Your task to perform on an android device: Go to notification settings Image 0: 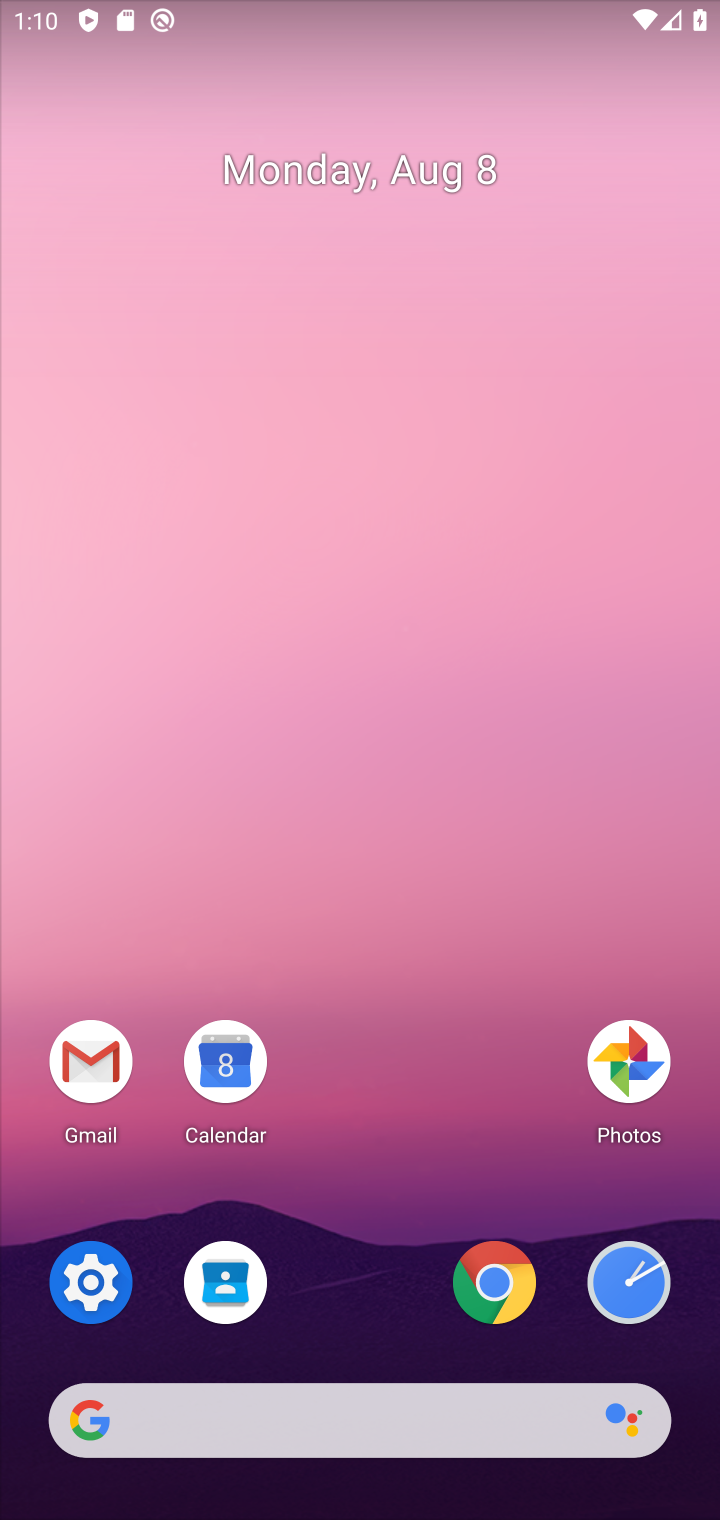
Step 0: click (75, 1290)
Your task to perform on an android device: Go to notification settings Image 1: 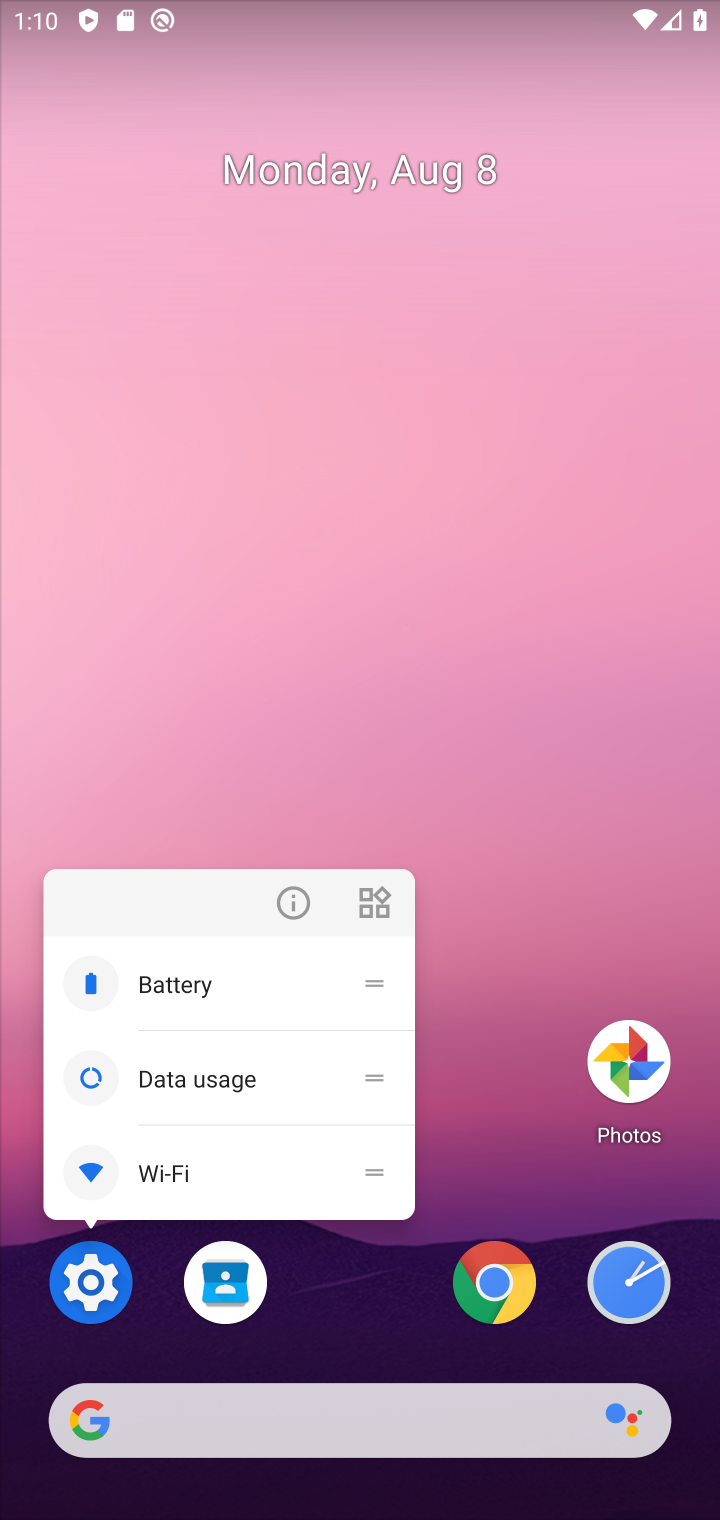
Step 1: click (75, 1290)
Your task to perform on an android device: Go to notification settings Image 2: 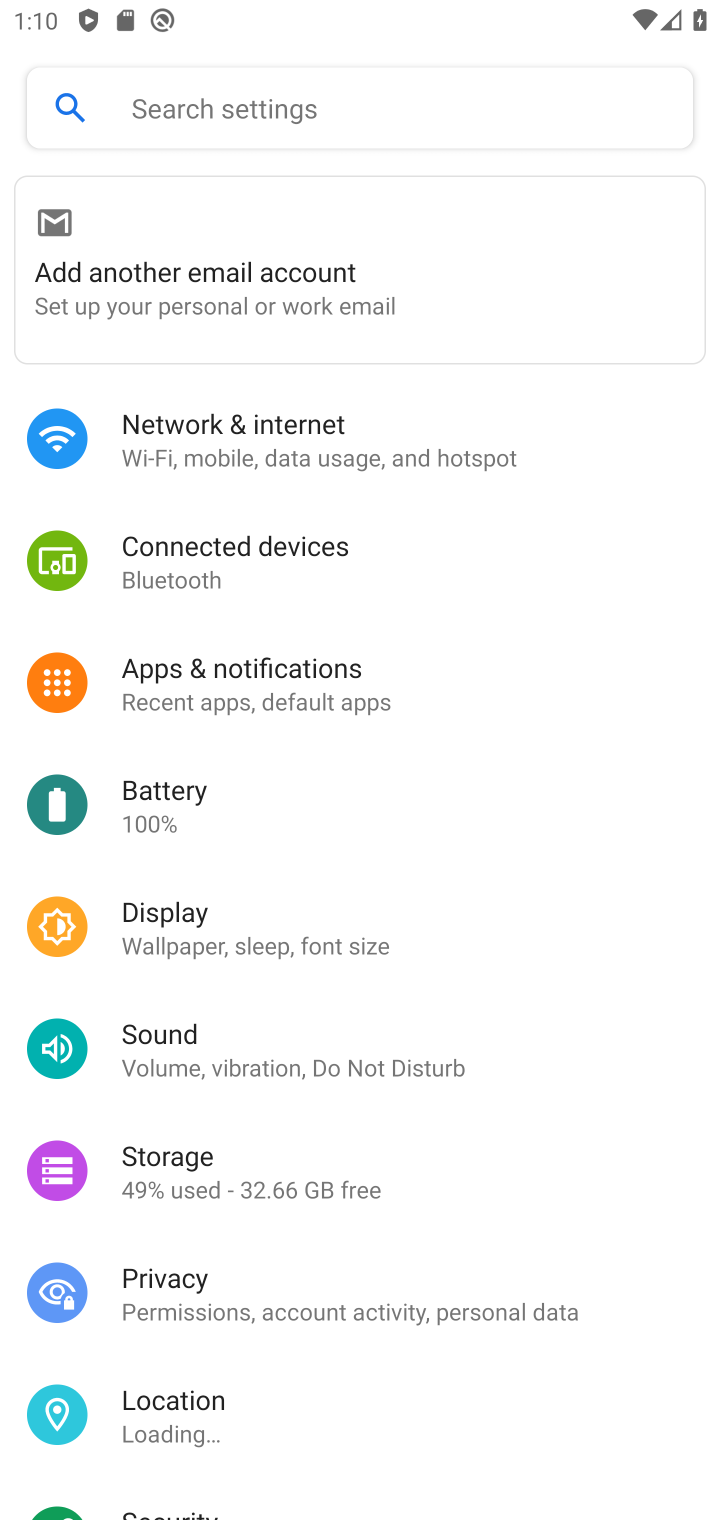
Step 2: click (321, 654)
Your task to perform on an android device: Go to notification settings Image 3: 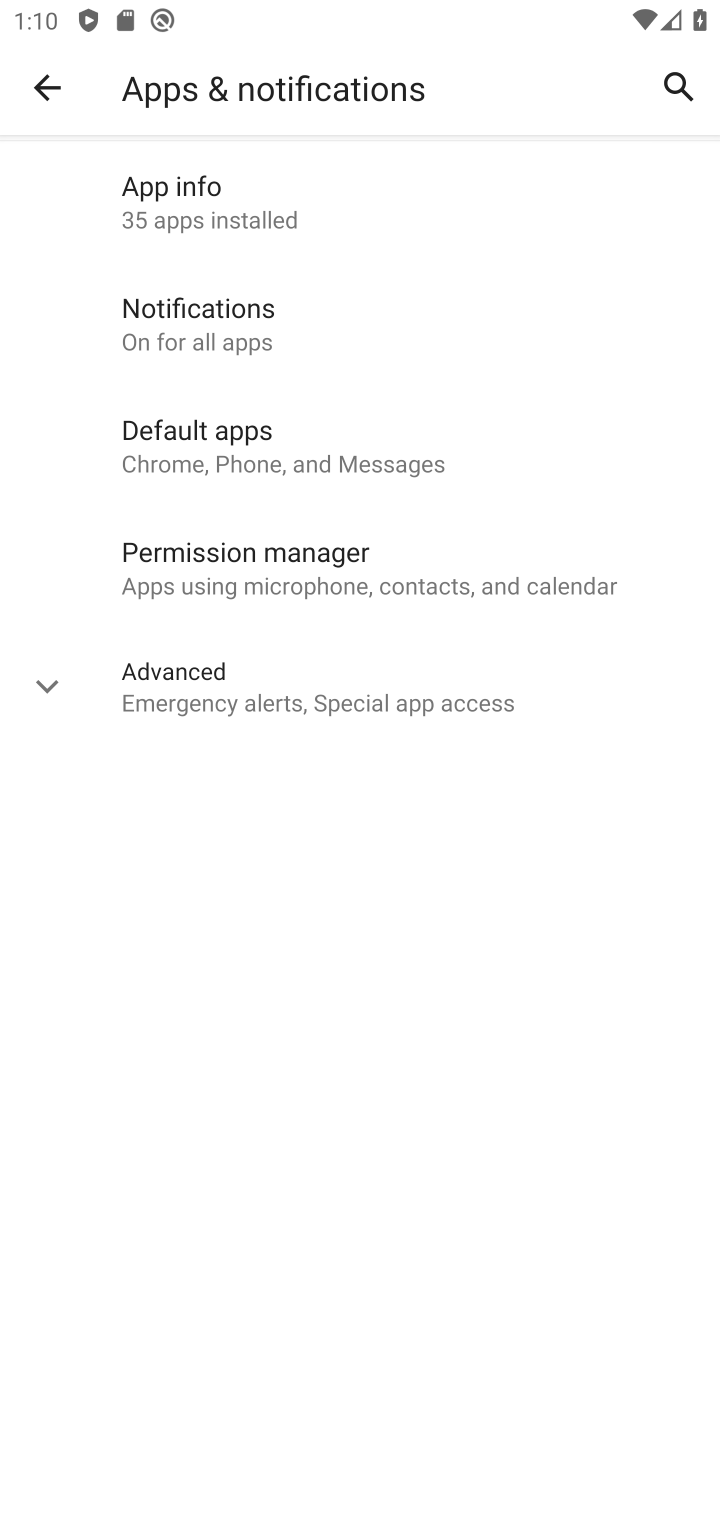
Step 3: task complete